Your task to perform on an android device: Open calendar and show me the fourth week of next month Image 0: 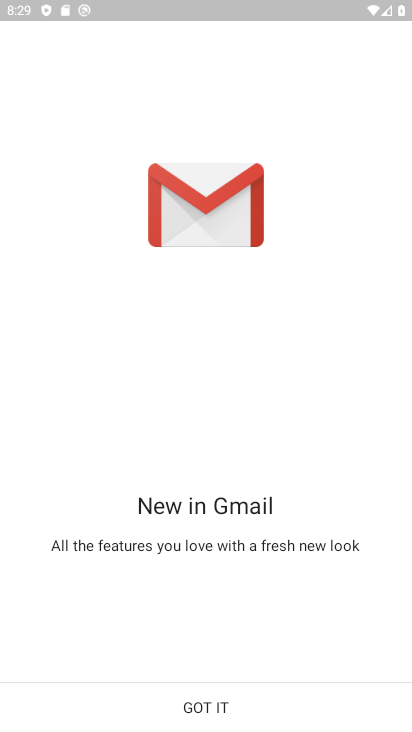
Step 0: press home button
Your task to perform on an android device: Open calendar and show me the fourth week of next month Image 1: 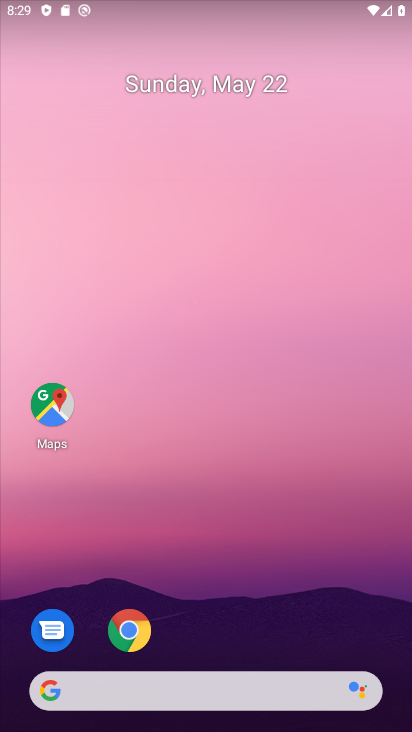
Step 1: drag from (351, 487) to (339, 364)
Your task to perform on an android device: Open calendar and show me the fourth week of next month Image 2: 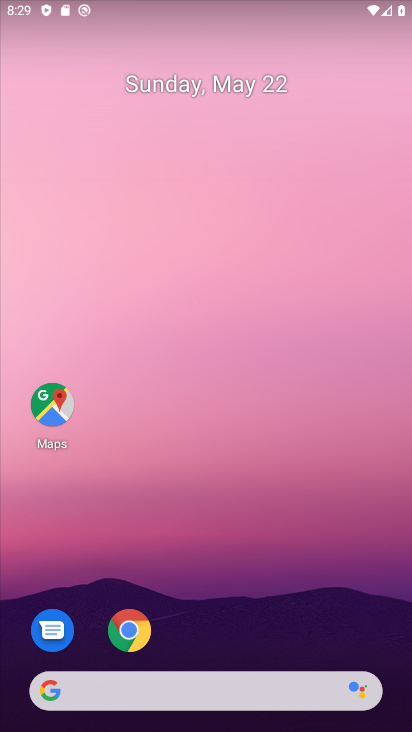
Step 2: drag from (391, 700) to (375, 147)
Your task to perform on an android device: Open calendar and show me the fourth week of next month Image 3: 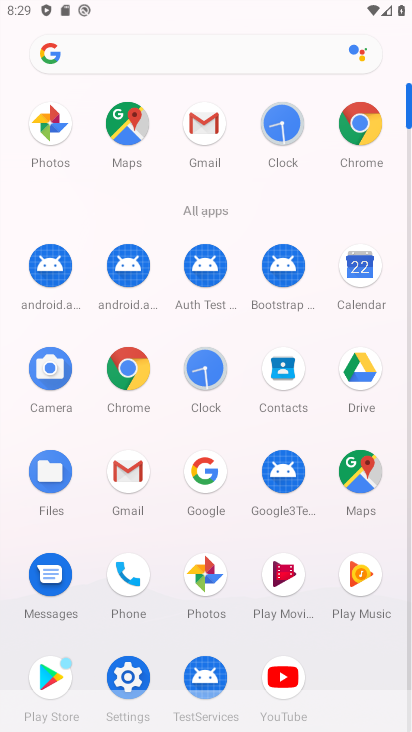
Step 3: click (360, 268)
Your task to perform on an android device: Open calendar and show me the fourth week of next month Image 4: 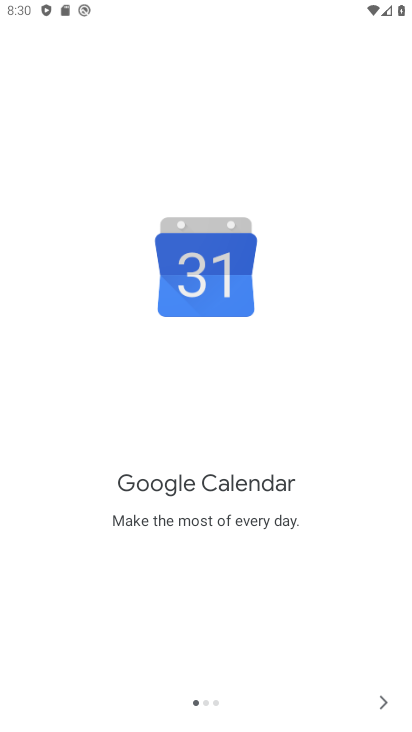
Step 4: click (376, 690)
Your task to perform on an android device: Open calendar and show me the fourth week of next month Image 5: 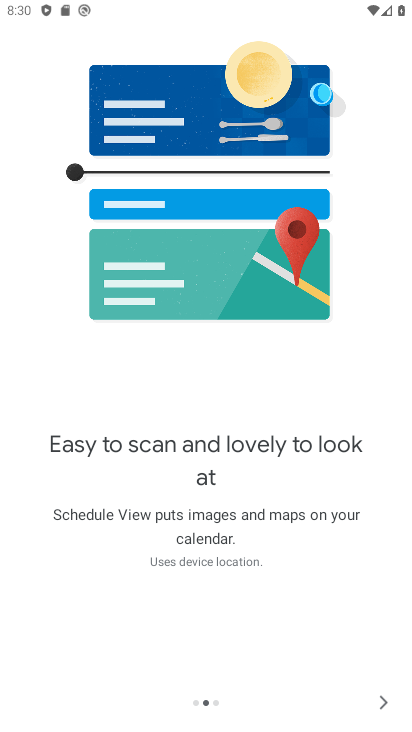
Step 5: click (379, 698)
Your task to perform on an android device: Open calendar and show me the fourth week of next month Image 6: 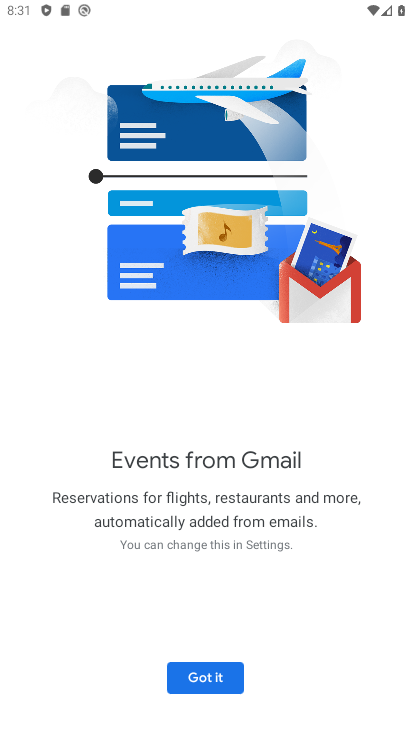
Step 6: click (221, 691)
Your task to perform on an android device: Open calendar and show me the fourth week of next month Image 7: 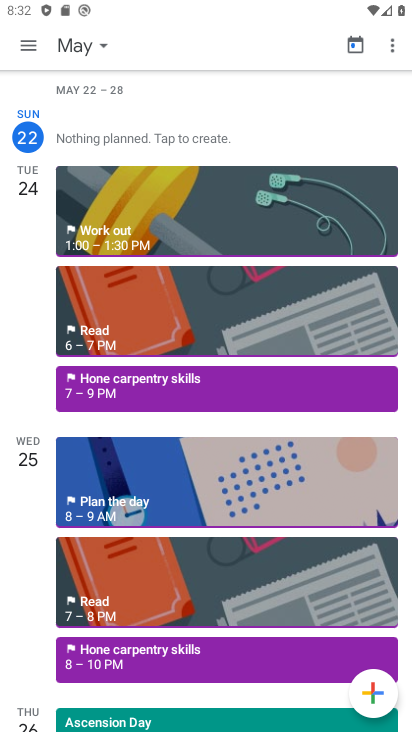
Step 7: click (106, 47)
Your task to perform on an android device: Open calendar and show me the fourth week of next month Image 8: 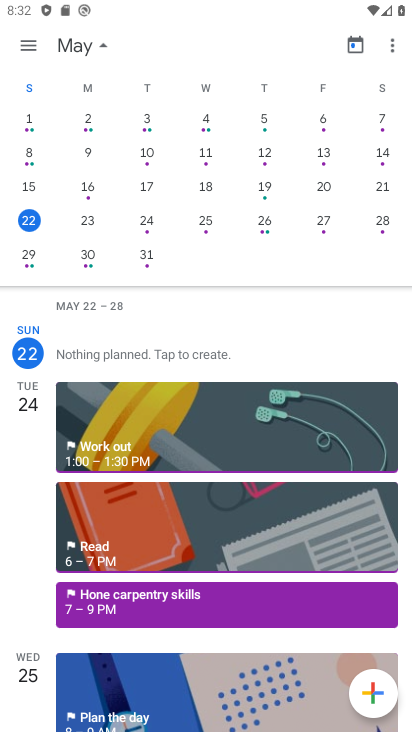
Step 8: drag from (396, 171) to (276, 178)
Your task to perform on an android device: Open calendar and show me the fourth week of next month Image 9: 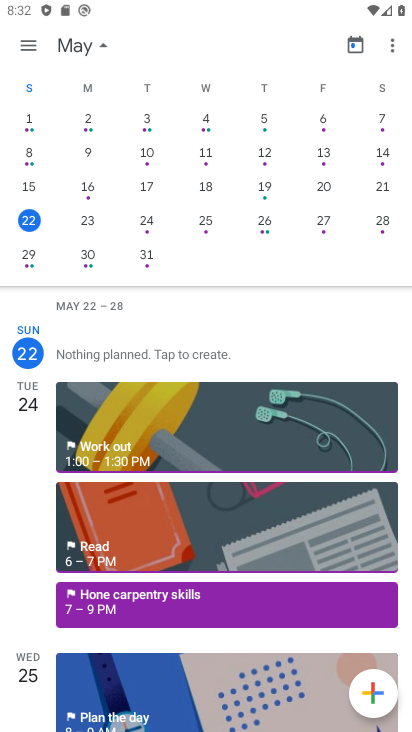
Step 9: drag from (397, 179) to (260, 177)
Your task to perform on an android device: Open calendar and show me the fourth week of next month Image 10: 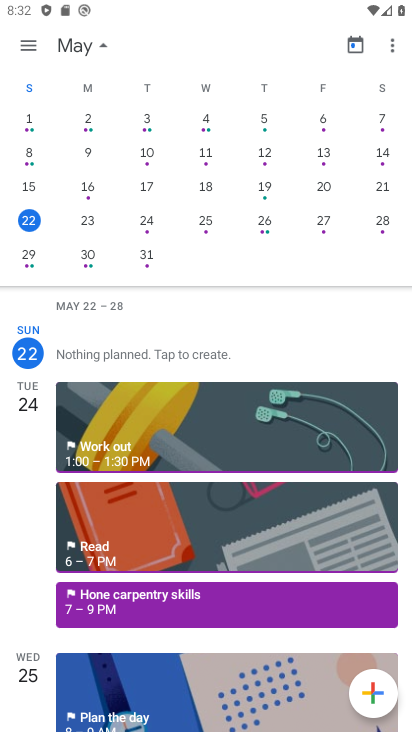
Step 10: drag from (399, 150) to (85, 112)
Your task to perform on an android device: Open calendar and show me the fourth week of next month Image 11: 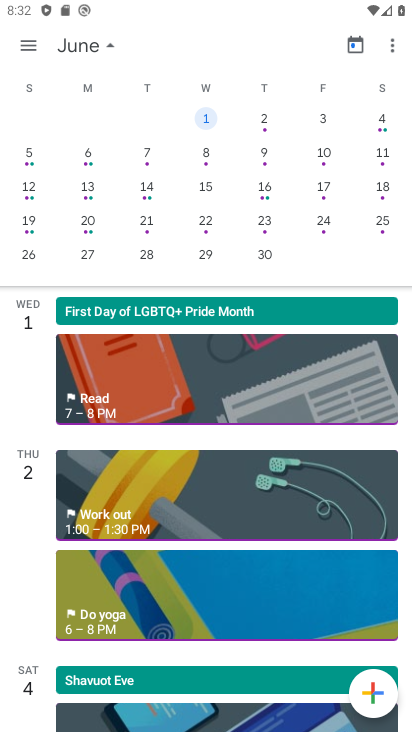
Step 11: click (265, 215)
Your task to perform on an android device: Open calendar and show me the fourth week of next month Image 12: 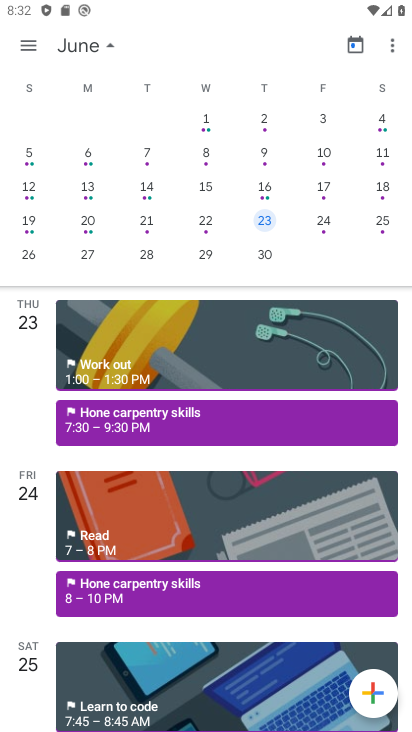
Step 12: task complete